Your task to perform on an android device: turn off javascript in the chrome app Image 0: 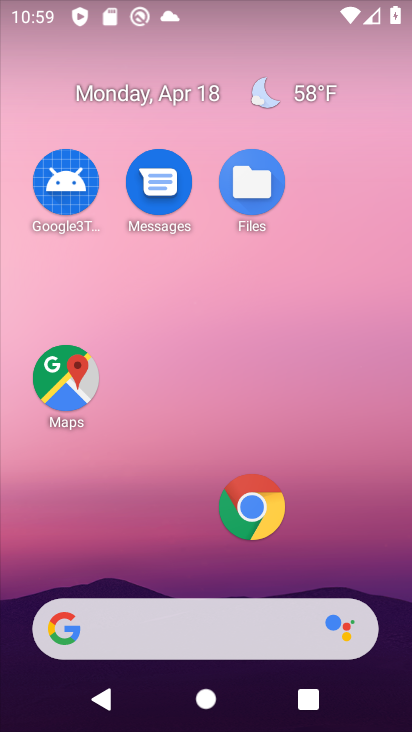
Step 0: click (205, 120)
Your task to perform on an android device: turn off javascript in the chrome app Image 1: 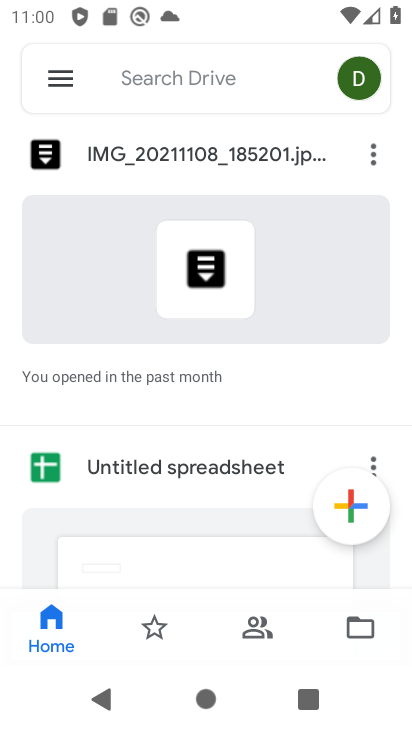
Step 1: press home button
Your task to perform on an android device: turn off javascript in the chrome app Image 2: 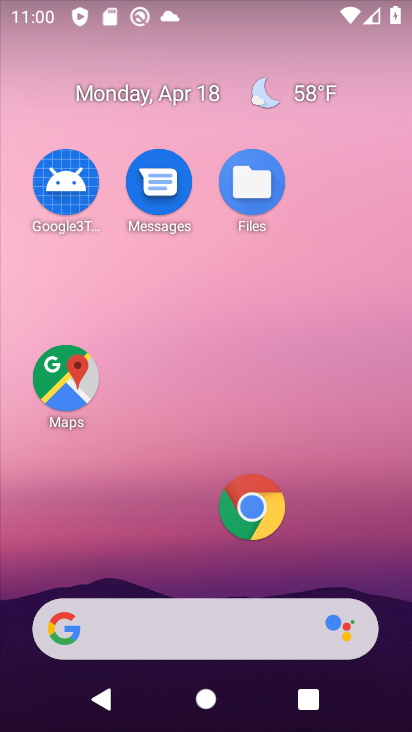
Step 2: click (251, 502)
Your task to perform on an android device: turn off javascript in the chrome app Image 3: 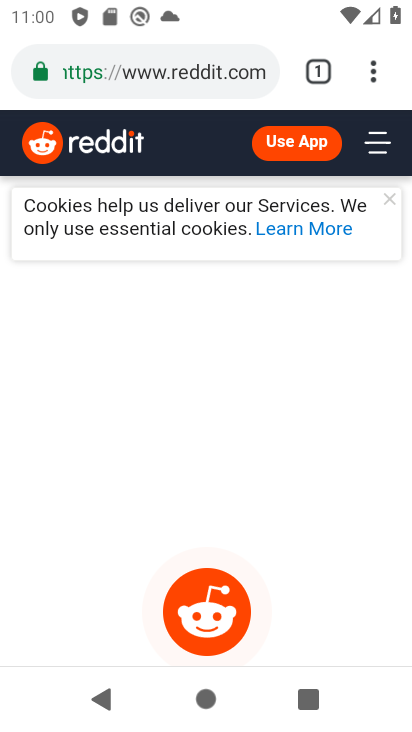
Step 3: click (361, 83)
Your task to perform on an android device: turn off javascript in the chrome app Image 4: 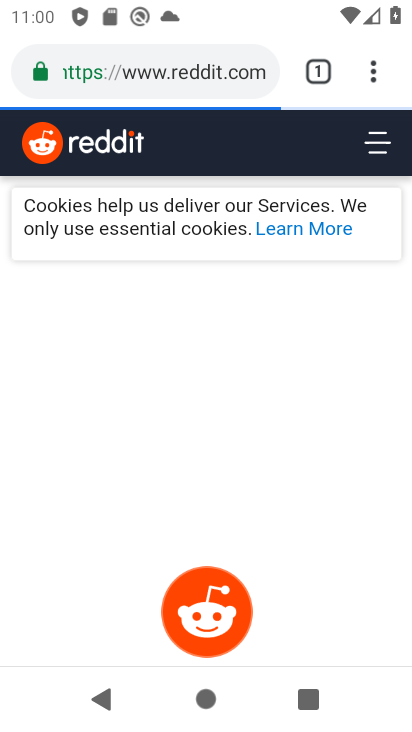
Step 4: click (371, 80)
Your task to perform on an android device: turn off javascript in the chrome app Image 5: 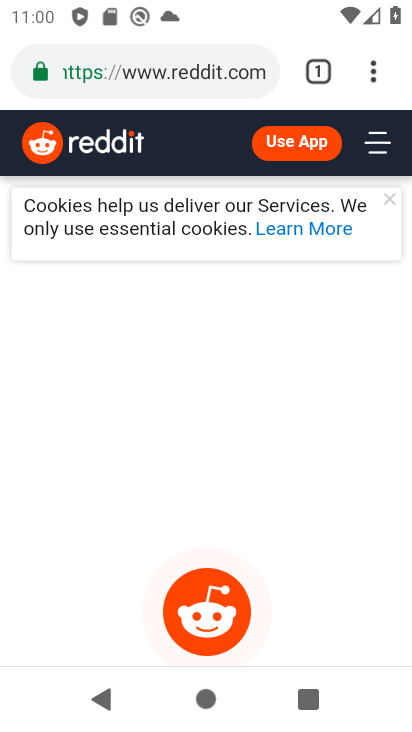
Step 5: click (372, 66)
Your task to perform on an android device: turn off javascript in the chrome app Image 6: 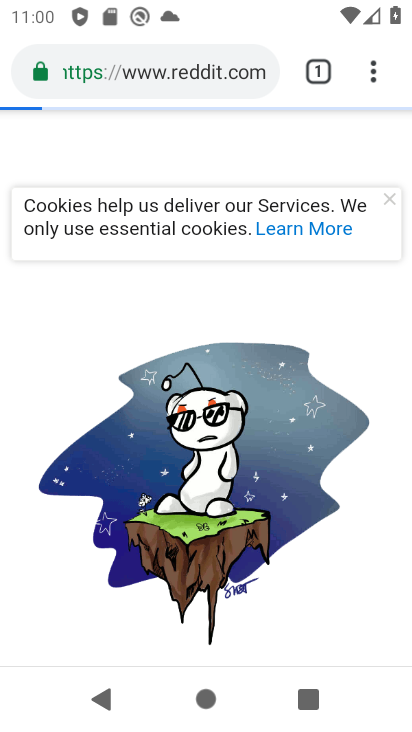
Step 6: drag from (372, 66) to (148, 499)
Your task to perform on an android device: turn off javascript in the chrome app Image 7: 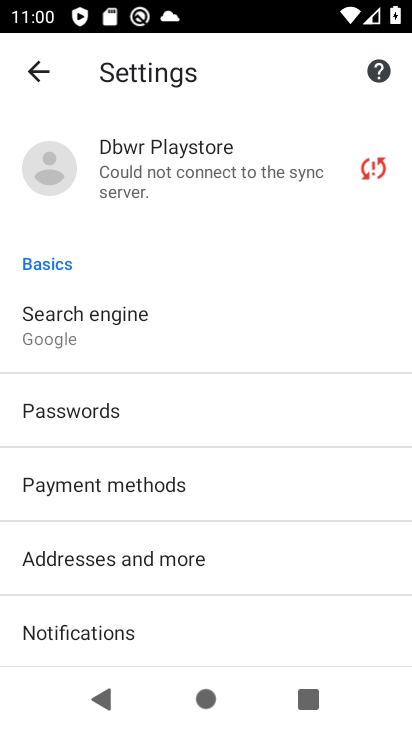
Step 7: drag from (147, 508) to (157, 90)
Your task to perform on an android device: turn off javascript in the chrome app Image 8: 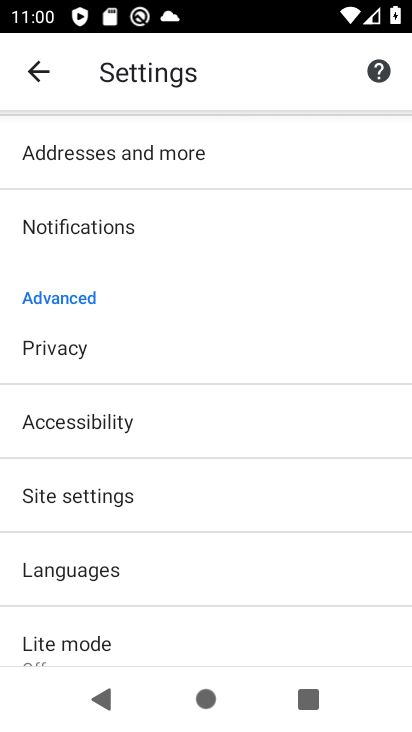
Step 8: click (117, 485)
Your task to perform on an android device: turn off javascript in the chrome app Image 9: 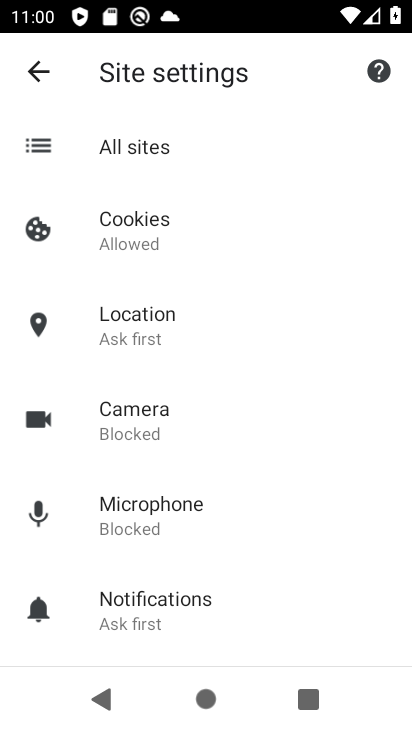
Step 9: drag from (173, 488) to (173, 179)
Your task to perform on an android device: turn off javascript in the chrome app Image 10: 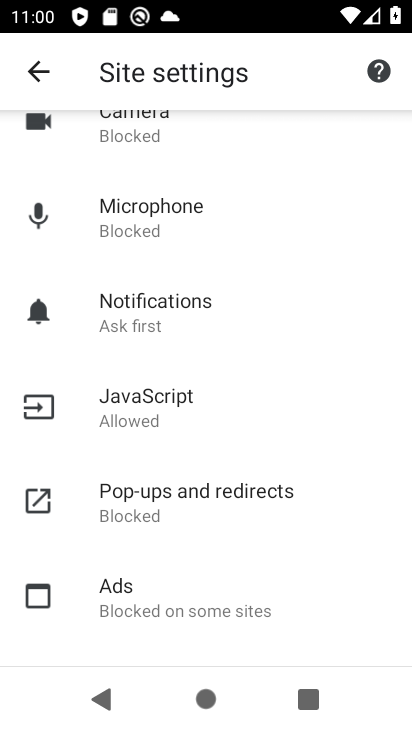
Step 10: click (168, 412)
Your task to perform on an android device: turn off javascript in the chrome app Image 11: 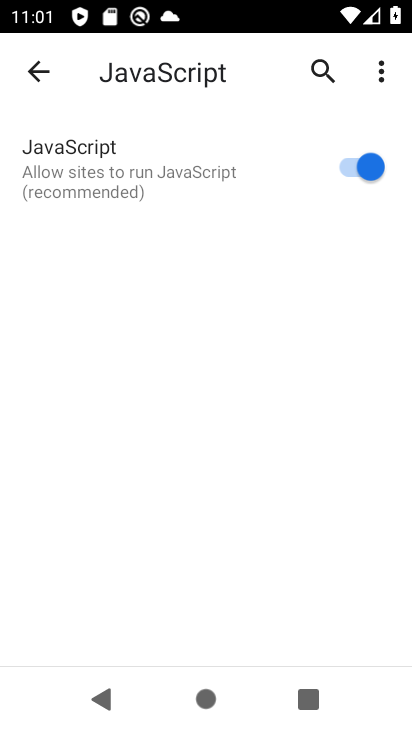
Step 11: click (332, 168)
Your task to perform on an android device: turn off javascript in the chrome app Image 12: 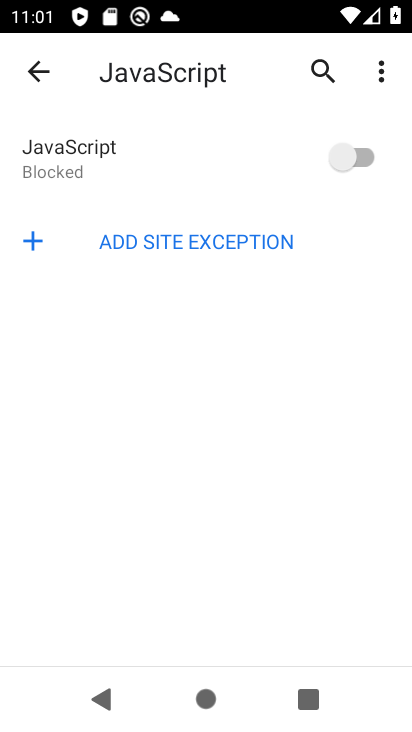
Step 12: task complete